Your task to perform on an android device: turn off wifi Image 0: 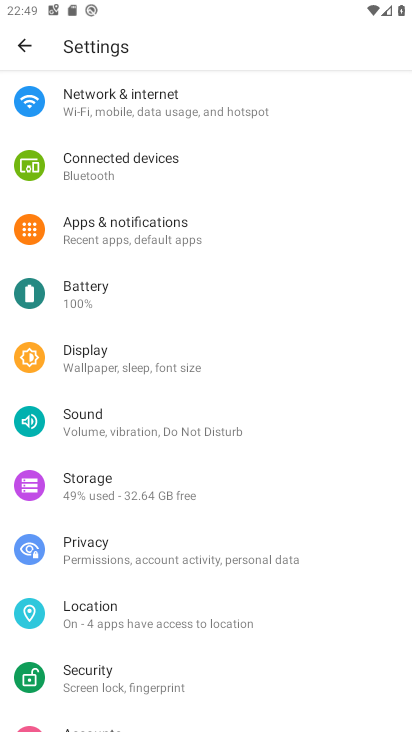
Step 0: drag from (228, 209) to (256, 640)
Your task to perform on an android device: turn off wifi Image 1: 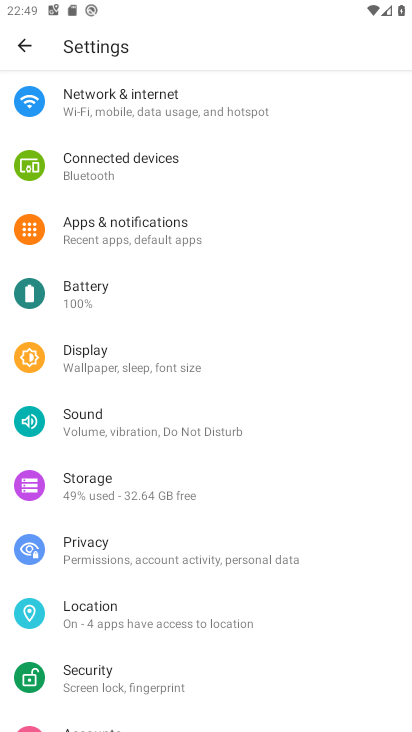
Step 1: click (126, 114)
Your task to perform on an android device: turn off wifi Image 2: 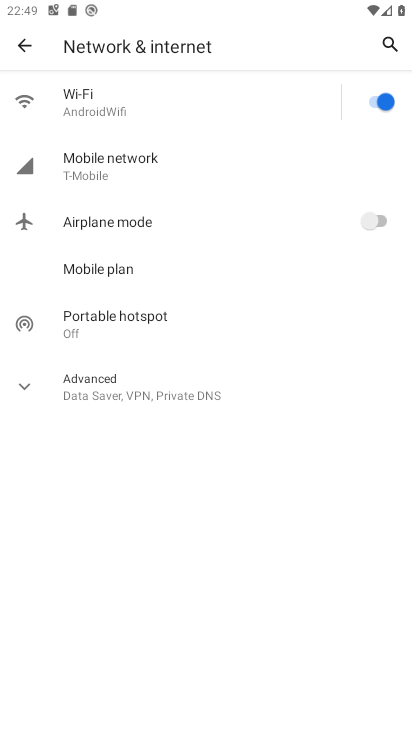
Step 2: click (377, 97)
Your task to perform on an android device: turn off wifi Image 3: 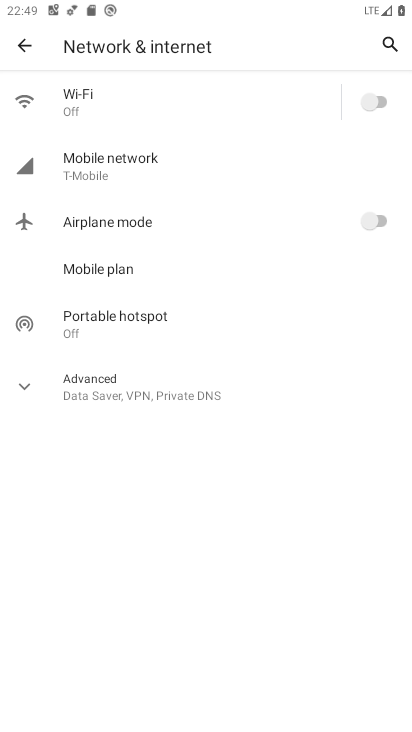
Step 3: task complete